Your task to perform on an android device: open app "eBay: The shopping marketplace" Image 0: 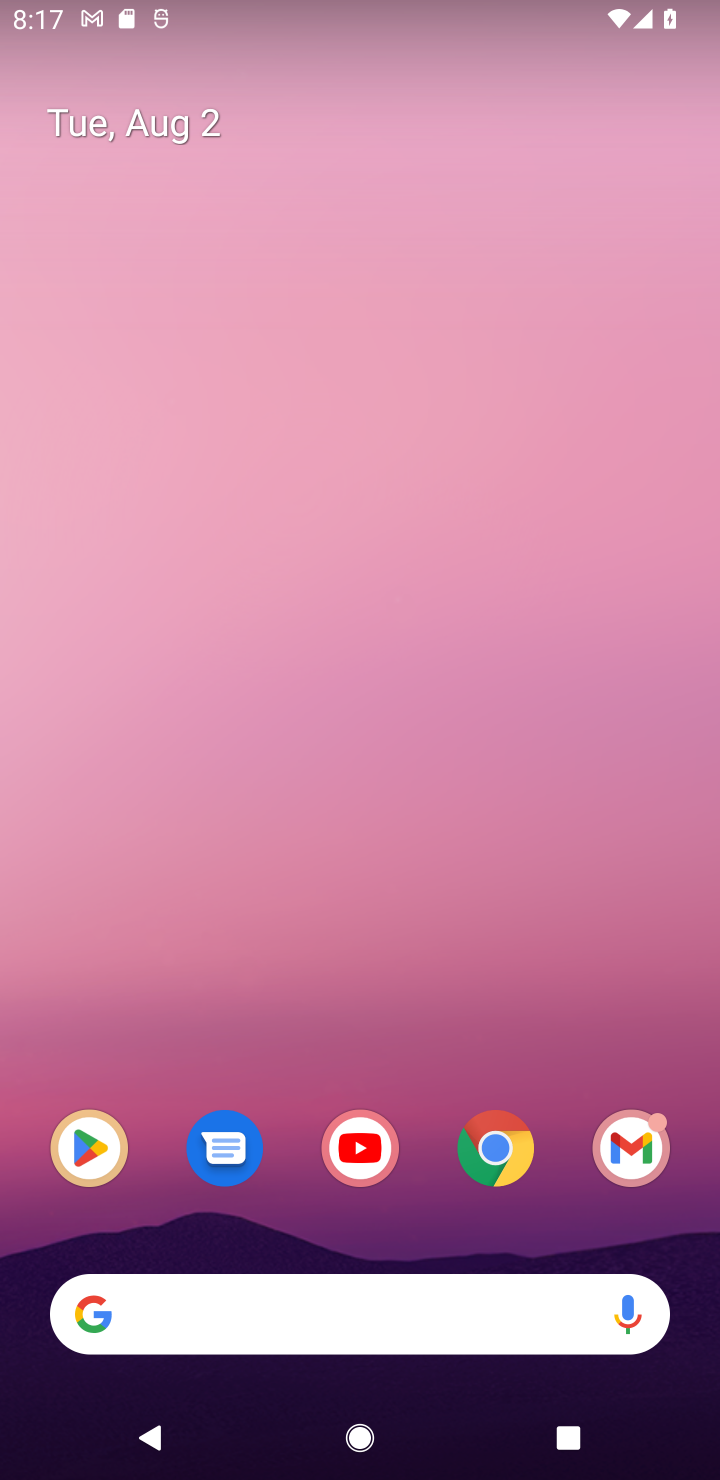
Step 0: drag from (637, 1237) to (212, 138)
Your task to perform on an android device: open app "eBay: The shopping marketplace" Image 1: 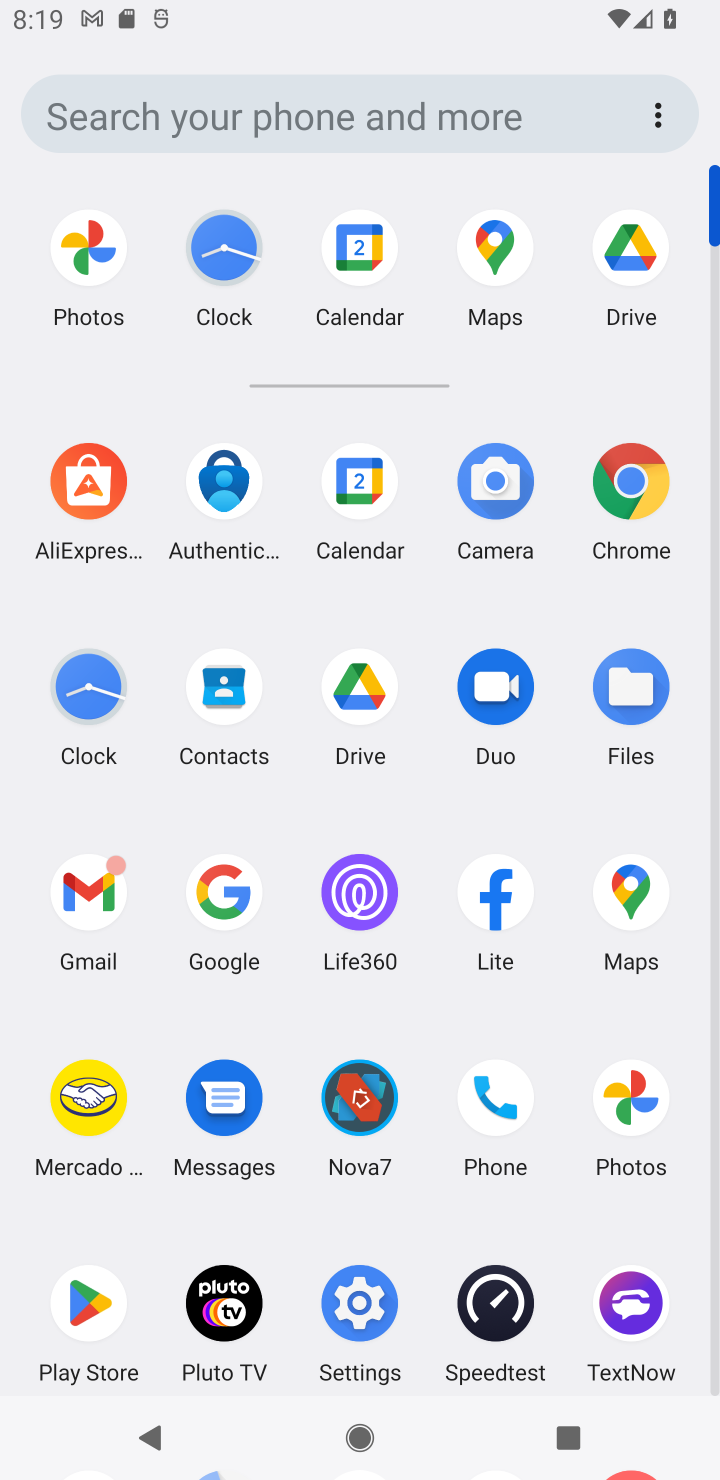
Step 1: click (104, 1326)
Your task to perform on an android device: open app "eBay: The shopping marketplace" Image 2: 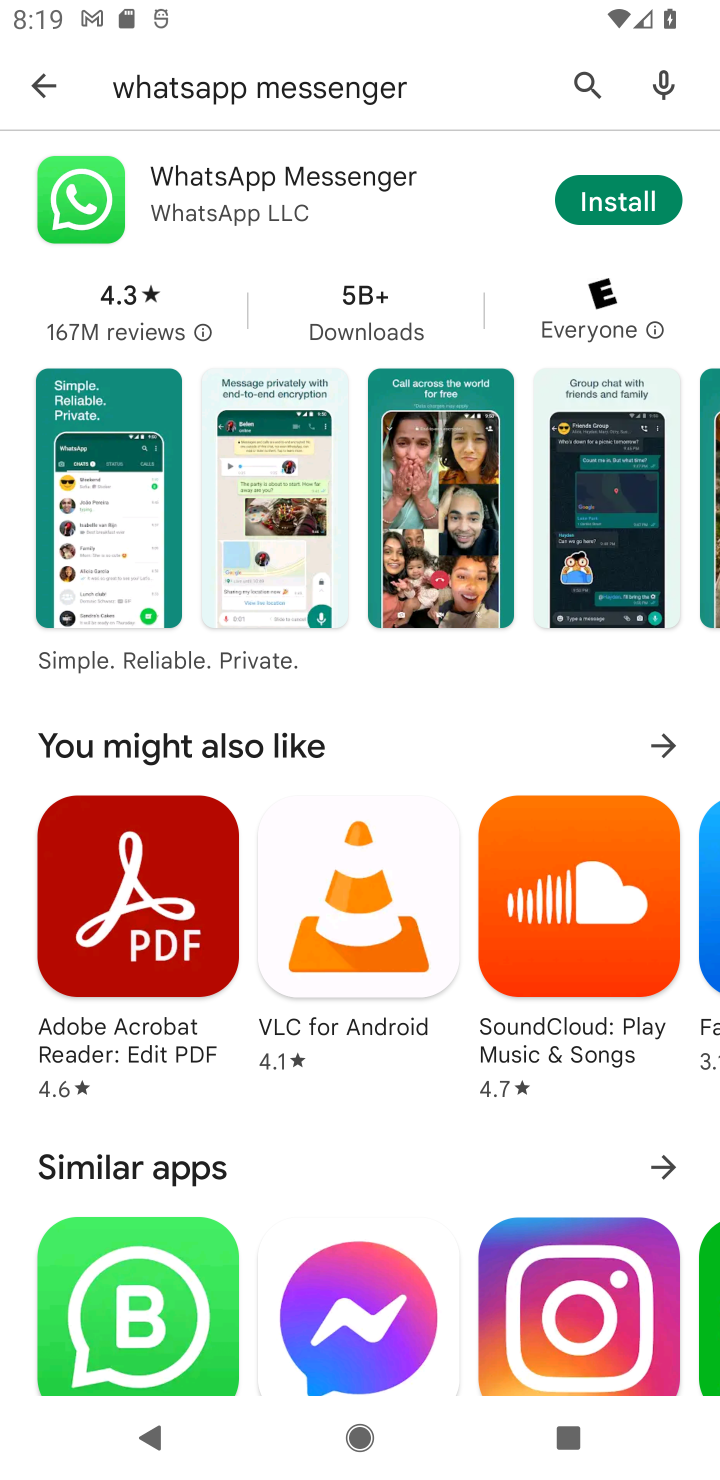
Step 2: press back button
Your task to perform on an android device: open app "eBay: The shopping marketplace" Image 3: 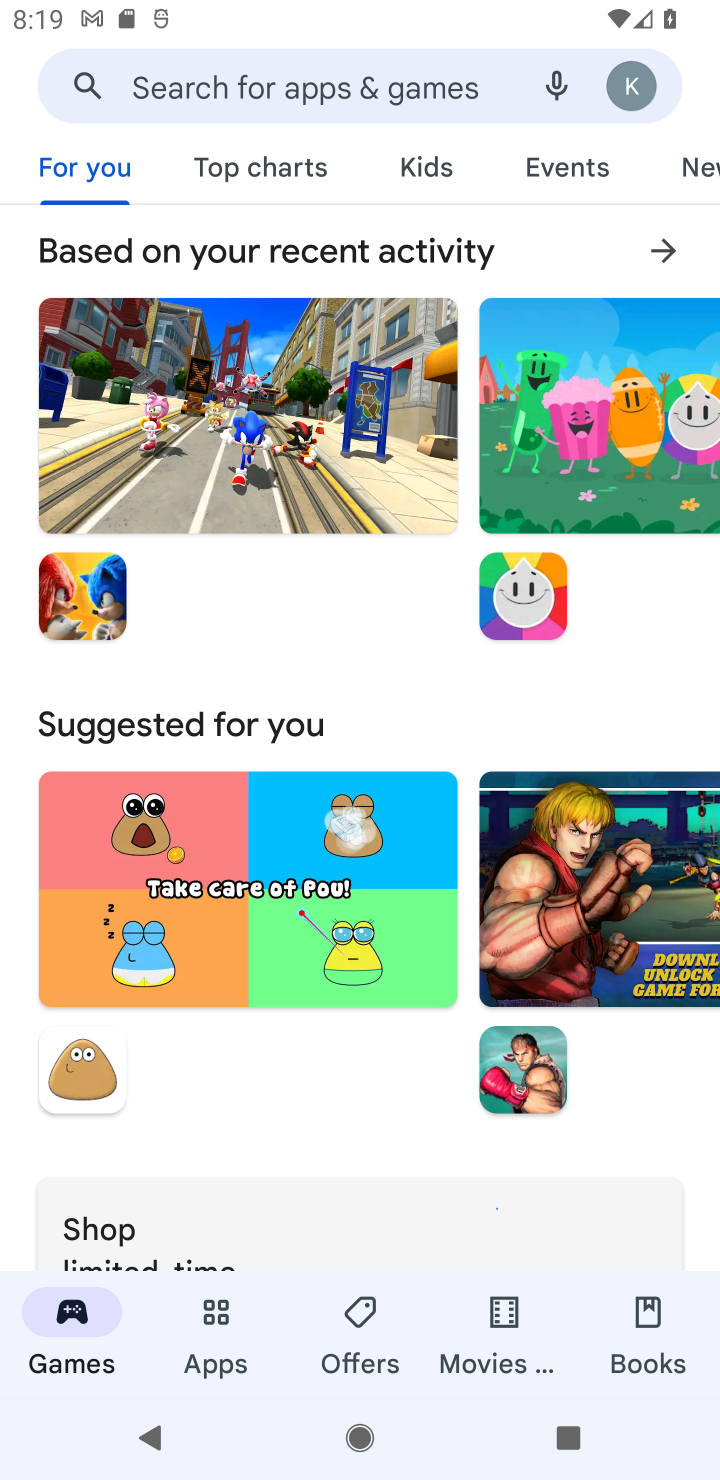
Step 3: click (190, 78)
Your task to perform on an android device: open app "eBay: The shopping marketplace" Image 4: 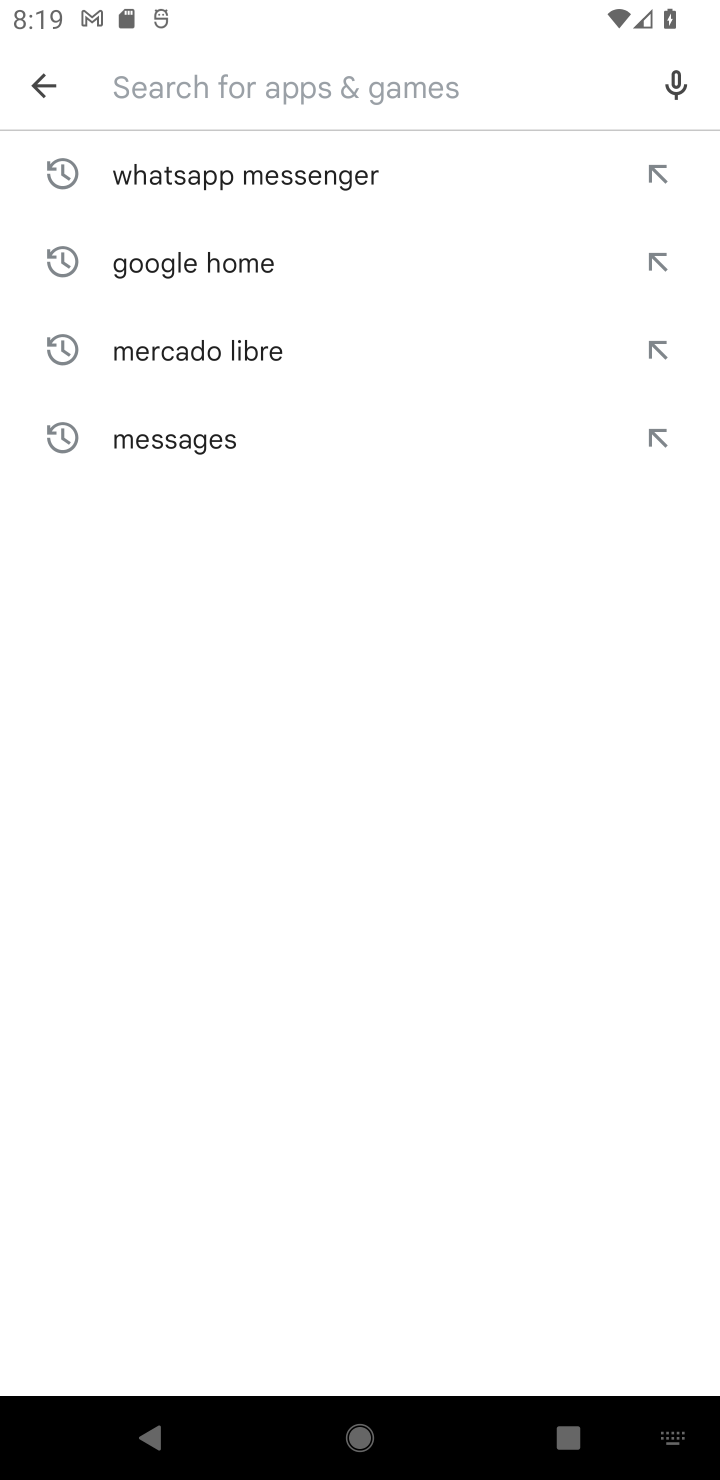
Step 4: type "eBay: The shopping marketplace"
Your task to perform on an android device: open app "eBay: The shopping marketplace" Image 5: 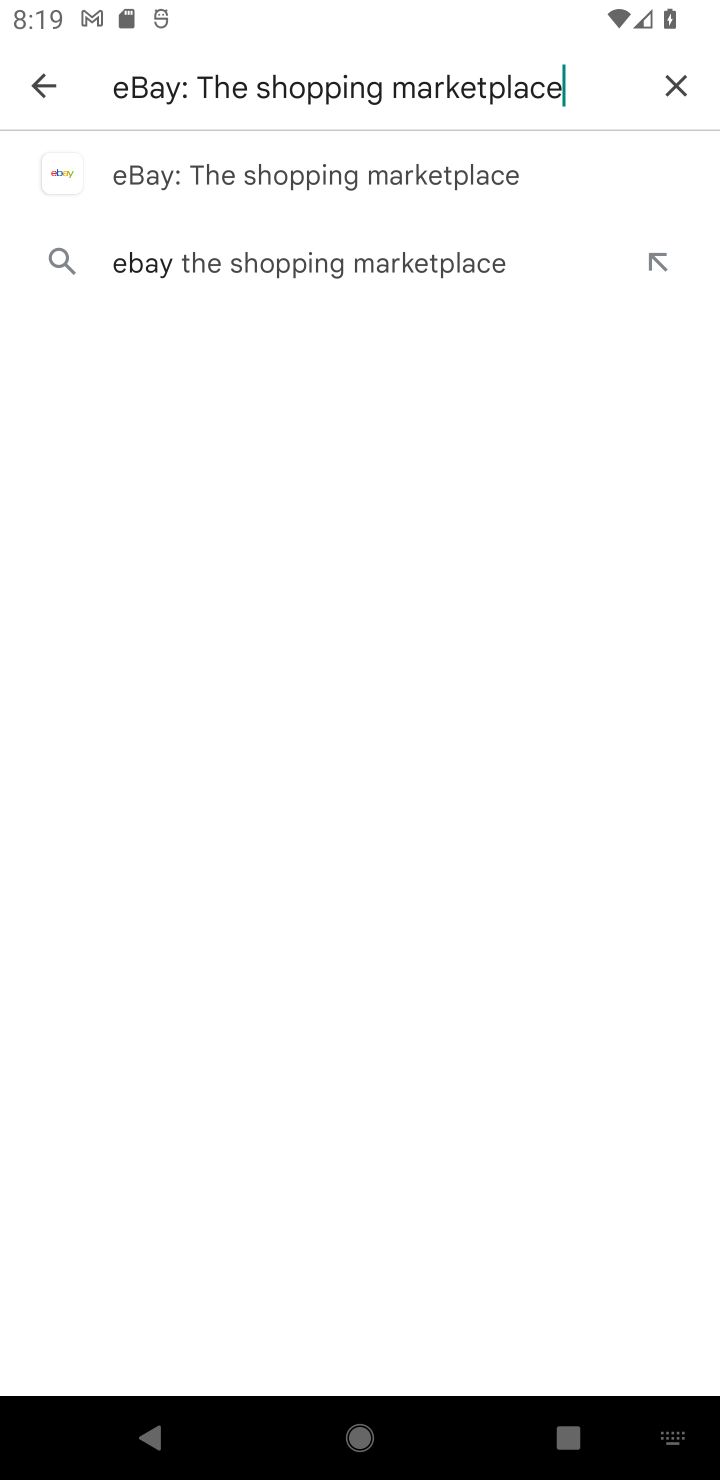
Step 5: click (280, 185)
Your task to perform on an android device: open app "eBay: The shopping marketplace" Image 6: 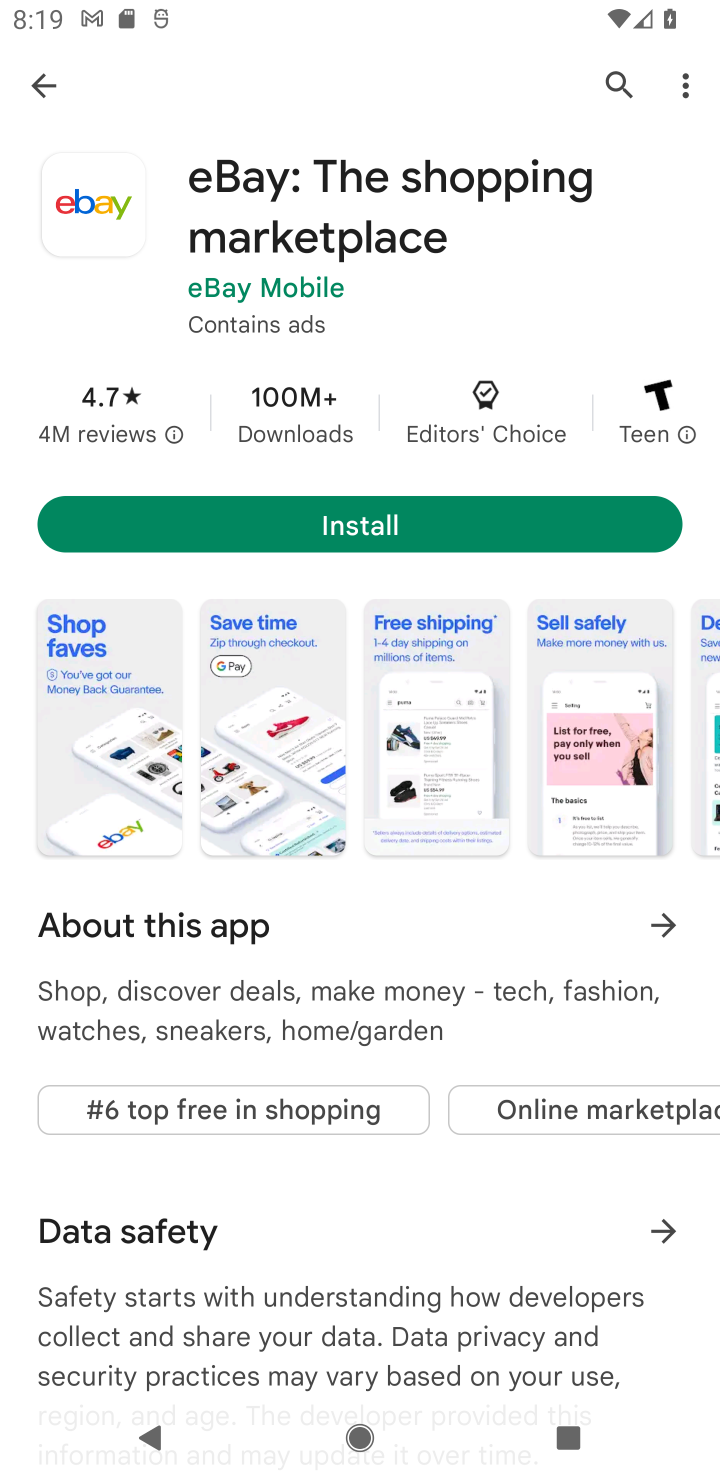
Step 6: task complete